Your task to perform on an android device: turn off data saver in the chrome app Image 0: 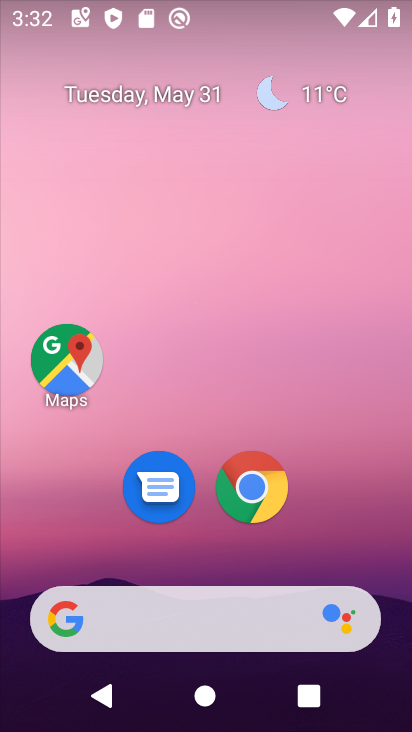
Step 0: click (252, 485)
Your task to perform on an android device: turn off data saver in the chrome app Image 1: 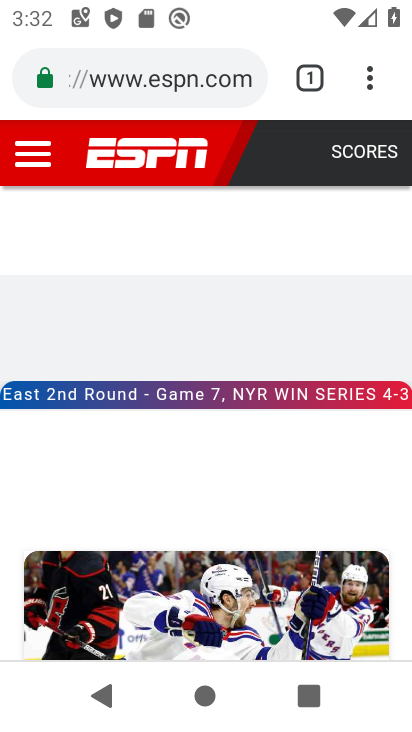
Step 1: click (370, 73)
Your task to perform on an android device: turn off data saver in the chrome app Image 2: 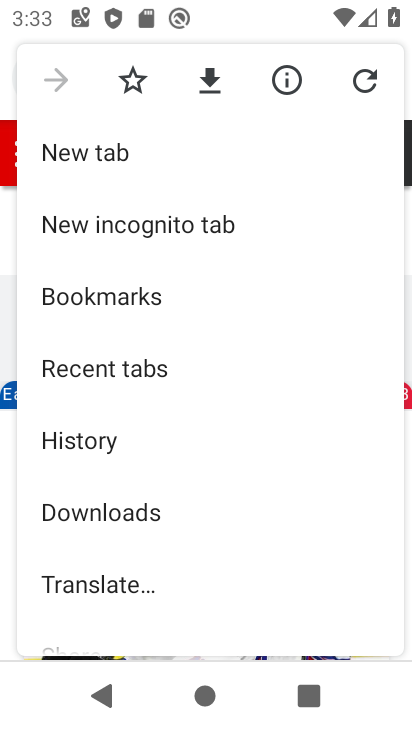
Step 2: drag from (166, 479) to (251, 337)
Your task to perform on an android device: turn off data saver in the chrome app Image 3: 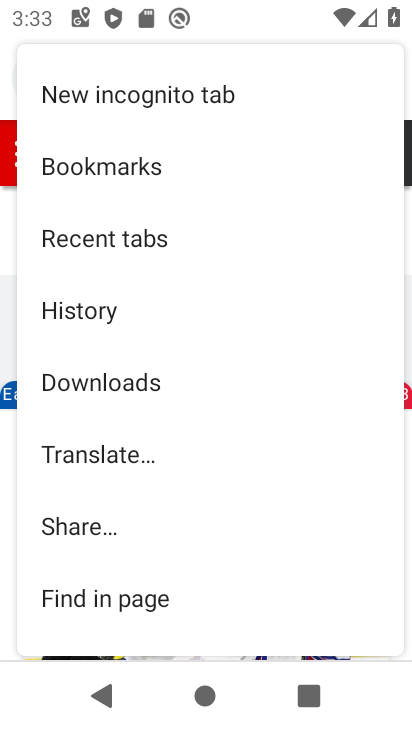
Step 3: drag from (158, 492) to (244, 385)
Your task to perform on an android device: turn off data saver in the chrome app Image 4: 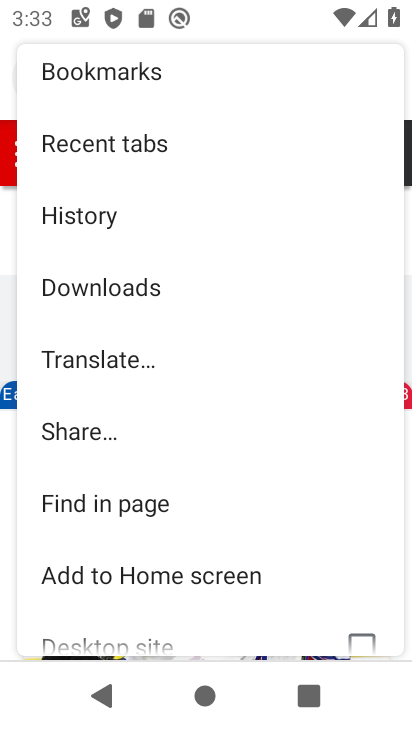
Step 4: drag from (147, 524) to (263, 374)
Your task to perform on an android device: turn off data saver in the chrome app Image 5: 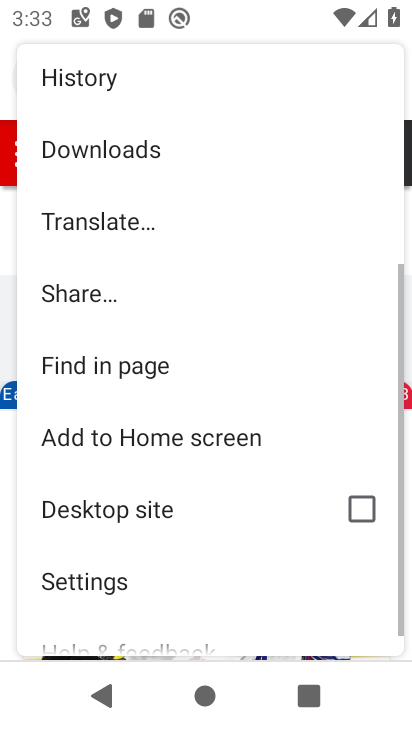
Step 5: drag from (146, 540) to (250, 398)
Your task to perform on an android device: turn off data saver in the chrome app Image 6: 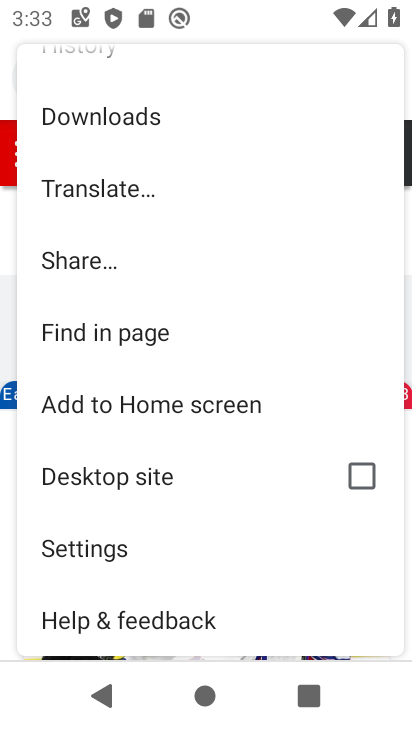
Step 6: click (108, 536)
Your task to perform on an android device: turn off data saver in the chrome app Image 7: 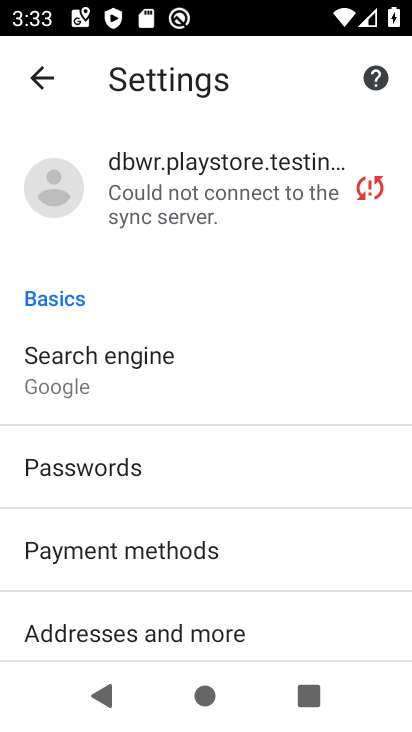
Step 7: drag from (156, 516) to (228, 394)
Your task to perform on an android device: turn off data saver in the chrome app Image 8: 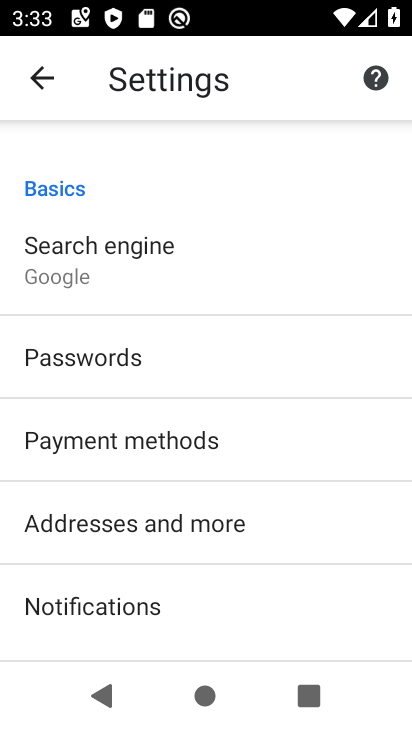
Step 8: drag from (146, 545) to (226, 439)
Your task to perform on an android device: turn off data saver in the chrome app Image 9: 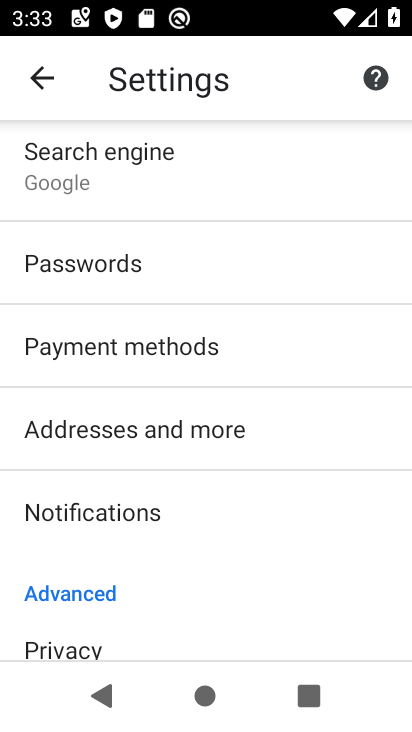
Step 9: drag from (82, 547) to (141, 416)
Your task to perform on an android device: turn off data saver in the chrome app Image 10: 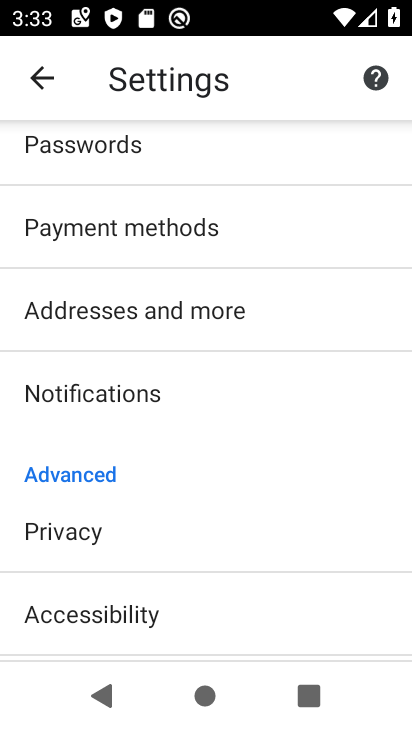
Step 10: drag from (124, 527) to (177, 443)
Your task to perform on an android device: turn off data saver in the chrome app Image 11: 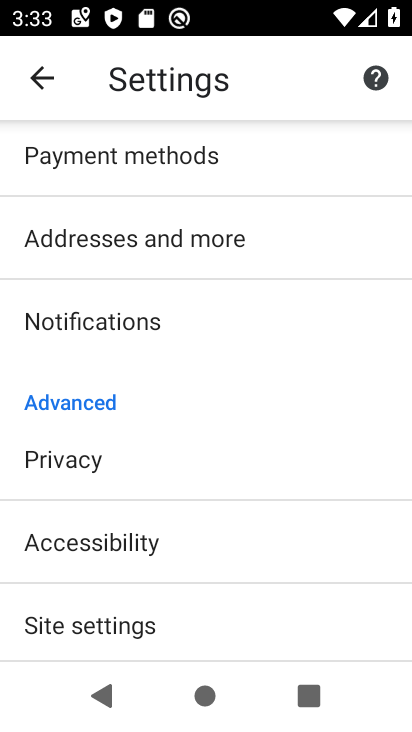
Step 11: drag from (152, 547) to (174, 483)
Your task to perform on an android device: turn off data saver in the chrome app Image 12: 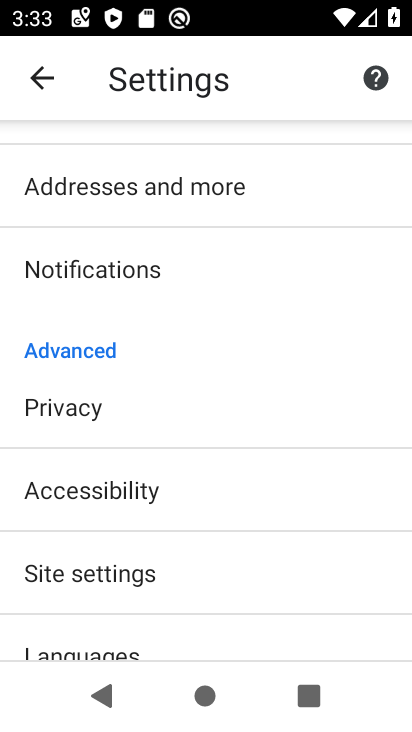
Step 12: drag from (174, 627) to (253, 432)
Your task to perform on an android device: turn off data saver in the chrome app Image 13: 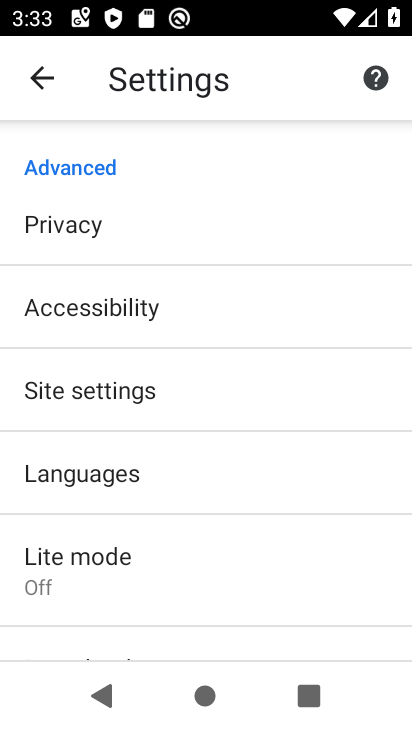
Step 13: click (75, 564)
Your task to perform on an android device: turn off data saver in the chrome app Image 14: 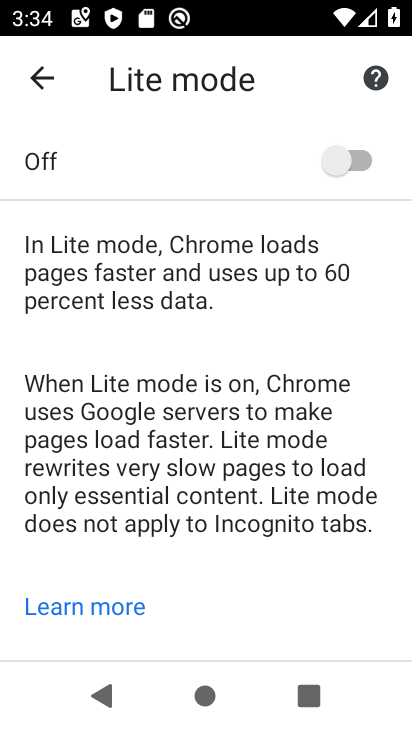
Step 14: task complete